Your task to perform on an android device: set the timer Image 0: 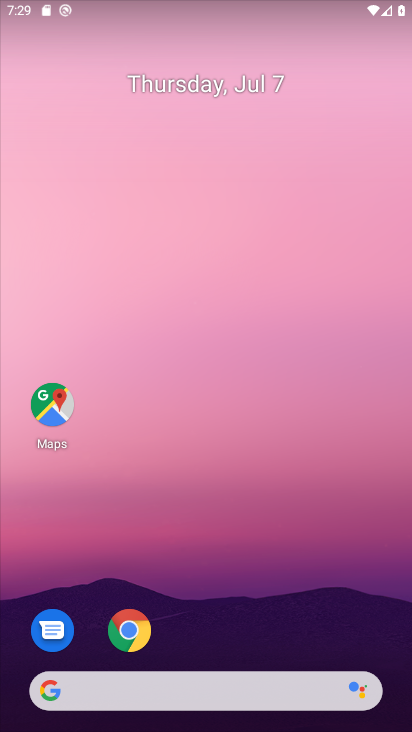
Step 0: drag from (205, 674) to (222, 156)
Your task to perform on an android device: set the timer Image 1: 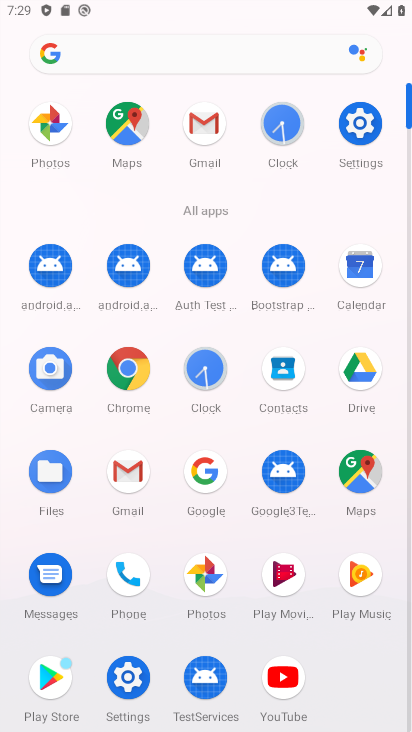
Step 1: click (286, 120)
Your task to perform on an android device: set the timer Image 2: 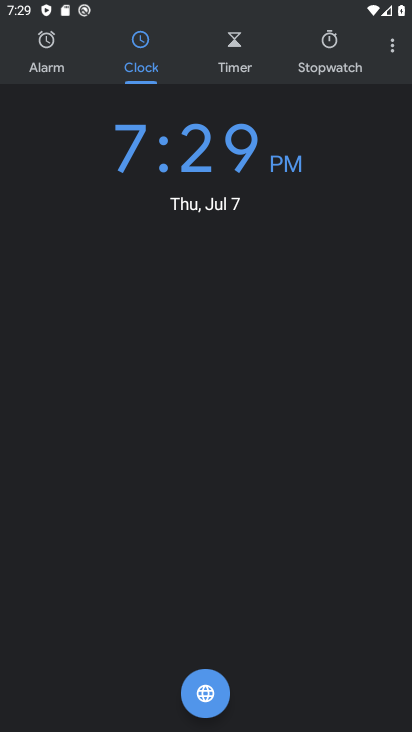
Step 2: click (237, 56)
Your task to perform on an android device: set the timer Image 3: 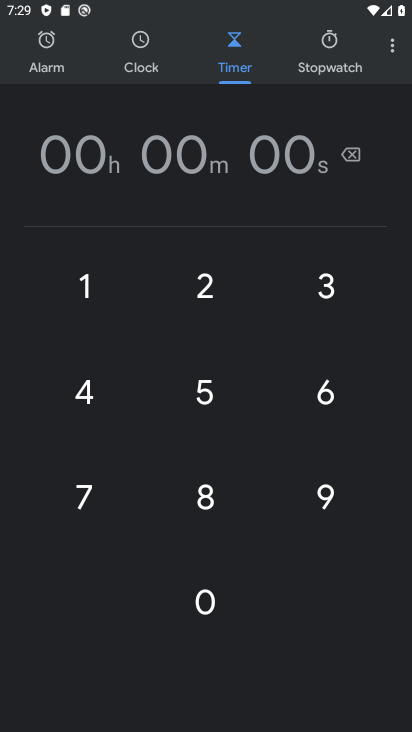
Step 3: click (200, 593)
Your task to perform on an android device: set the timer Image 4: 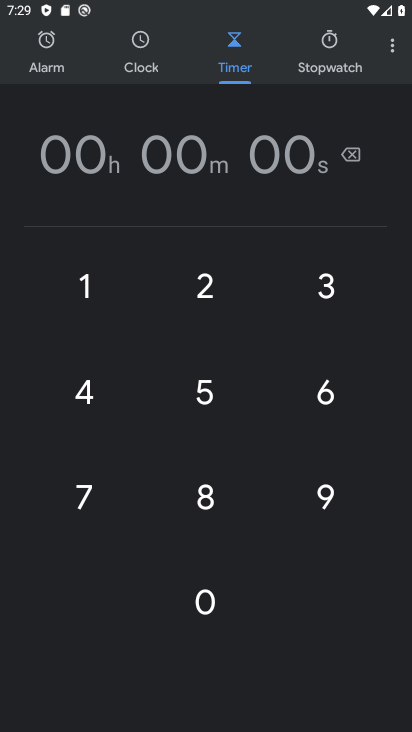
Step 4: click (202, 402)
Your task to perform on an android device: set the timer Image 5: 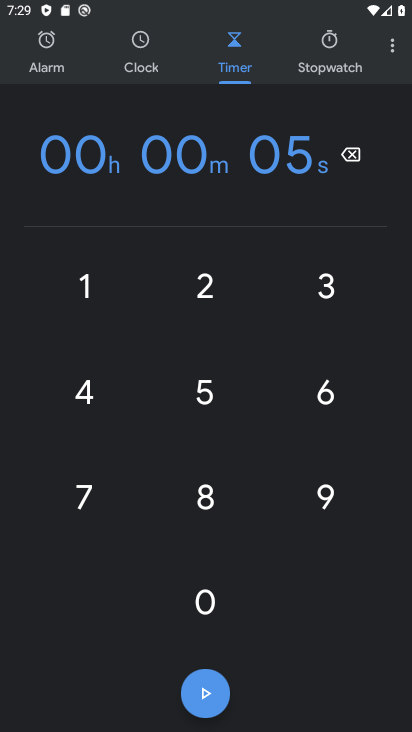
Step 5: click (212, 606)
Your task to perform on an android device: set the timer Image 6: 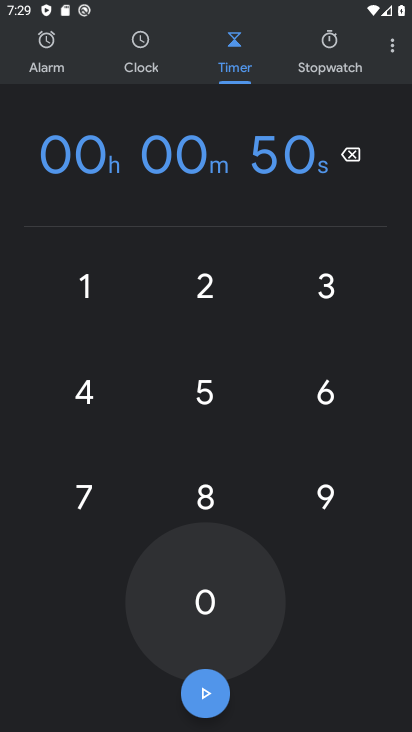
Step 6: click (205, 491)
Your task to perform on an android device: set the timer Image 7: 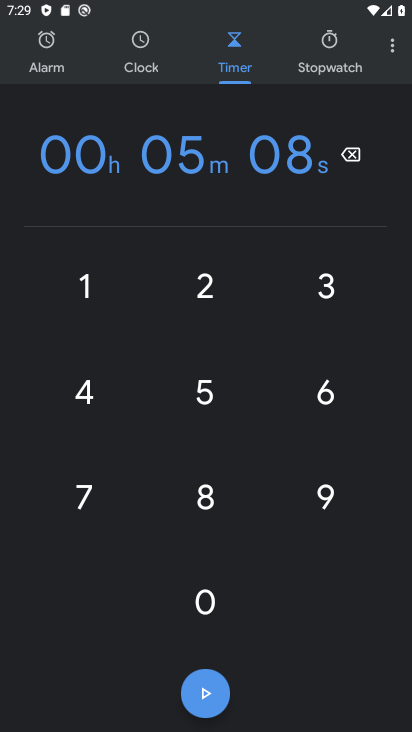
Step 7: click (204, 607)
Your task to perform on an android device: set the timer Image 8: 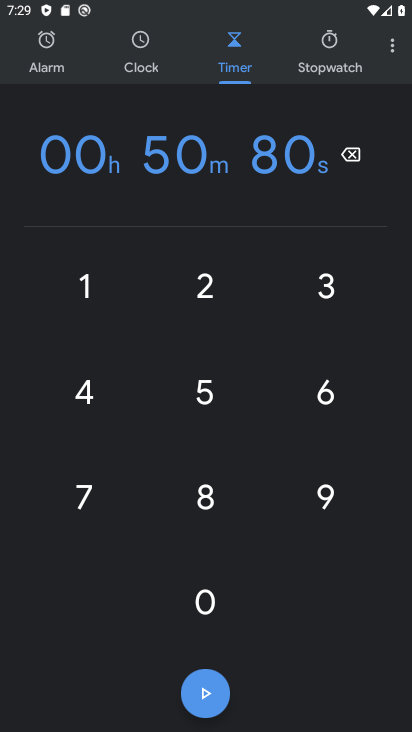
Step 8: click (92, 278)
Your task to perform on an android device: set the timer Image 9: 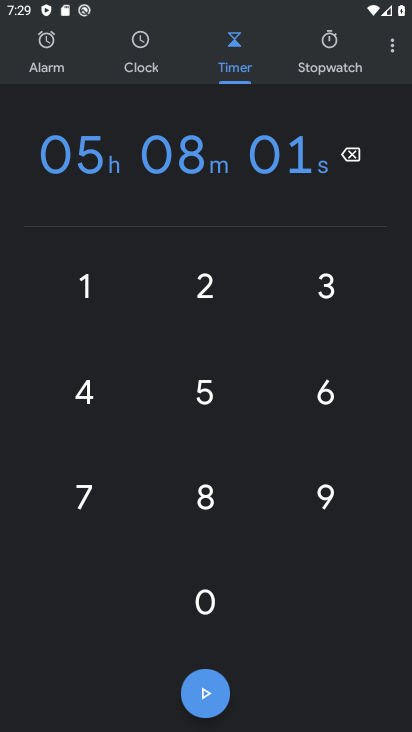
Step 9: click (208, 695)
Your task to perform on an android device: set the timer Image 10: 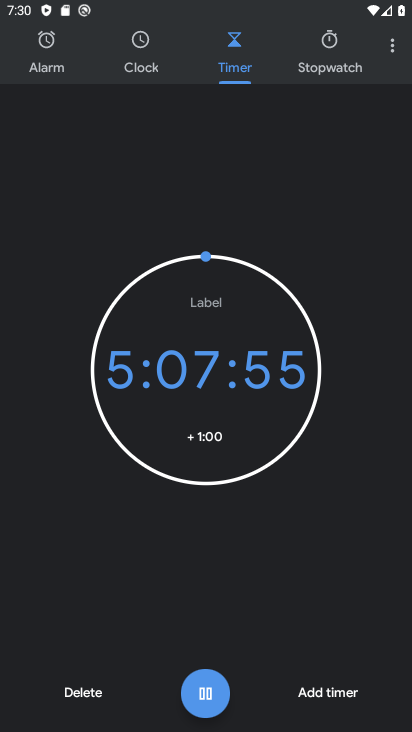
Step 10: task complete